Your task to perform on an android device: turn off location Image 0: 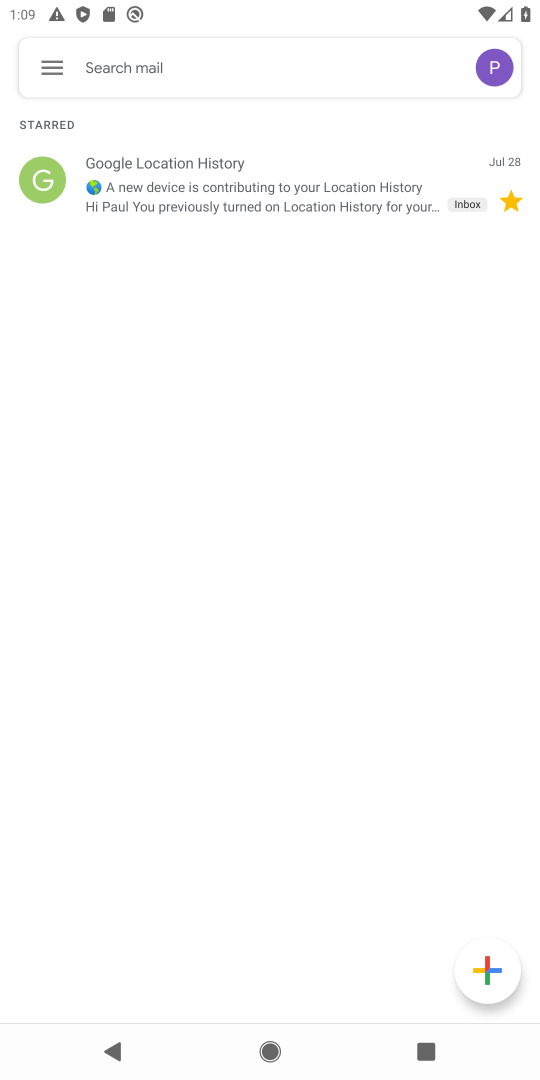
Step 0: press home button
Your task to perform on an android device: turn off location Image 1: 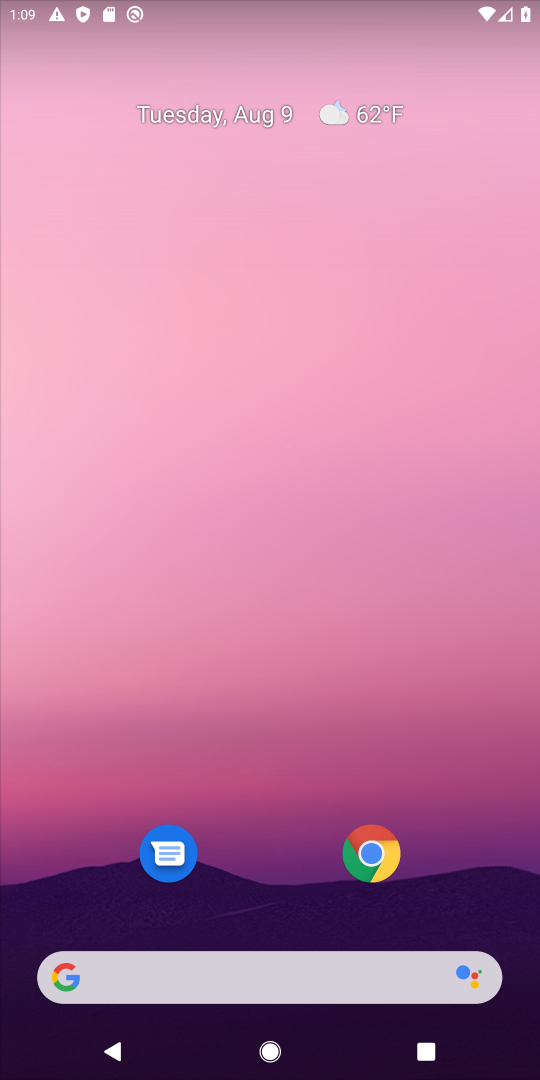
Step 1: drag from (261, 636) to (277, 191)
Your task to perform on an android device: turn off location Image 2: 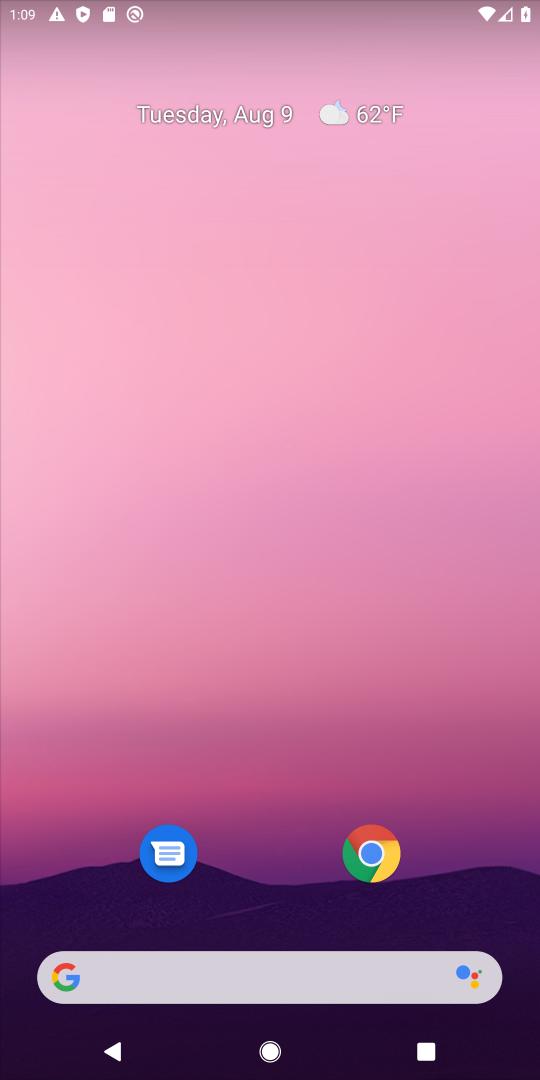
Step 2: drag from (296, 844) to (358, 0)
Your task to perform on an android device: turn off location Image 3: 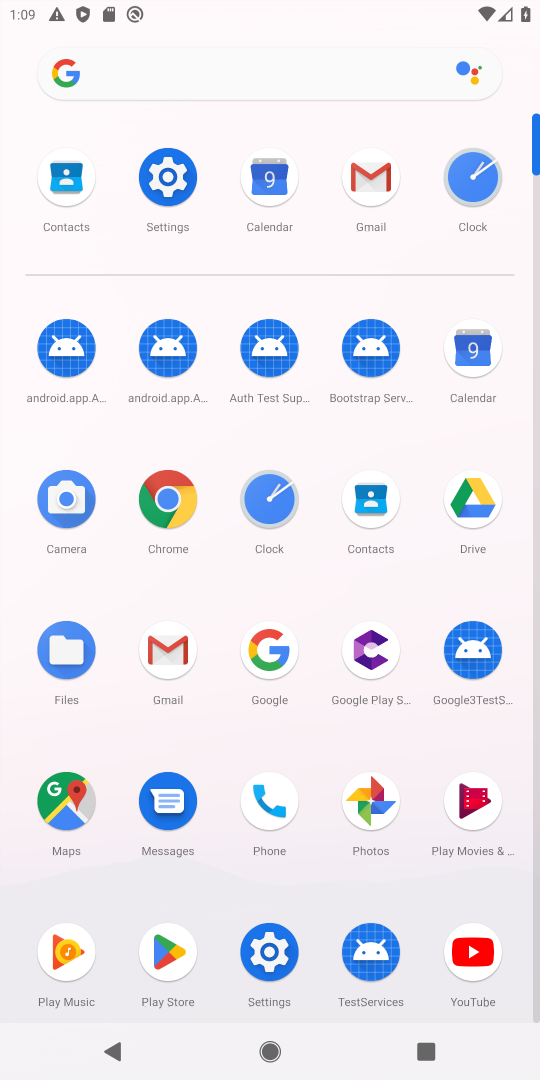
Step 3: click (148, 179)
Your task to perform on an android device: turn off location Image 4: 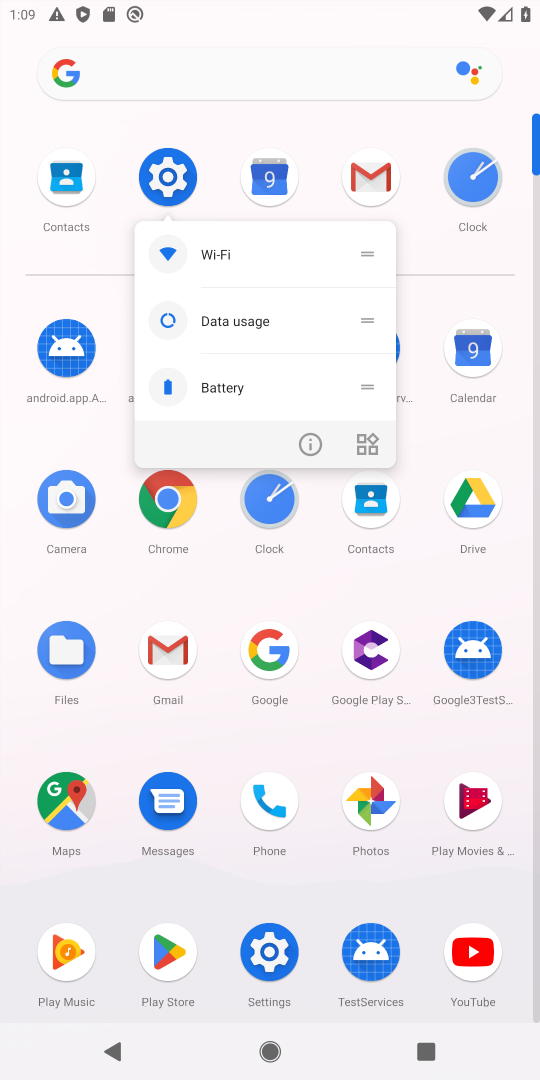
Step 4: click (180, 170)
Your task to perform on an android device: turn off location Image 5: 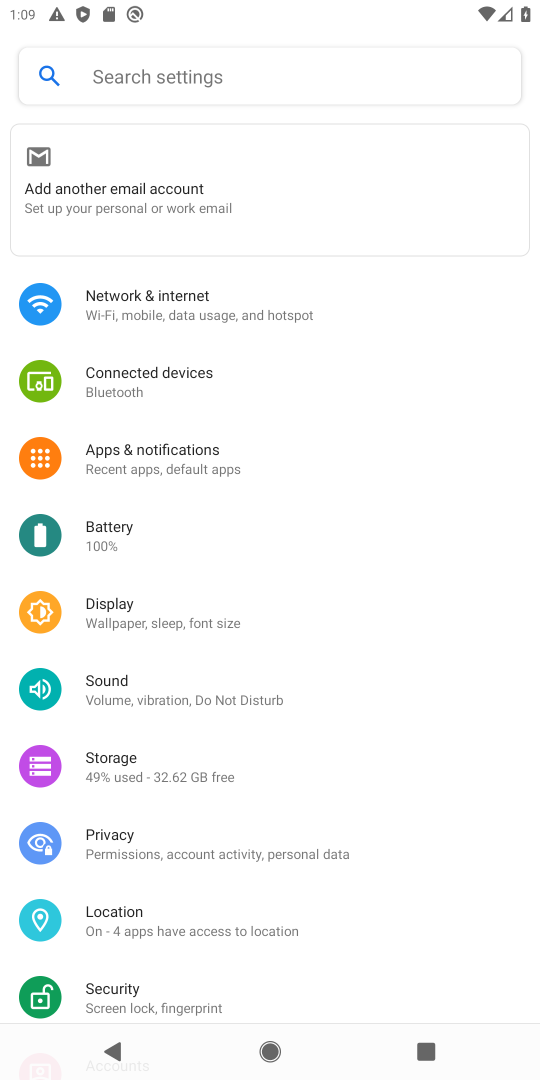
Step 5: click (164, 912)
Your task to perform on an android device: turn off location Image 6: 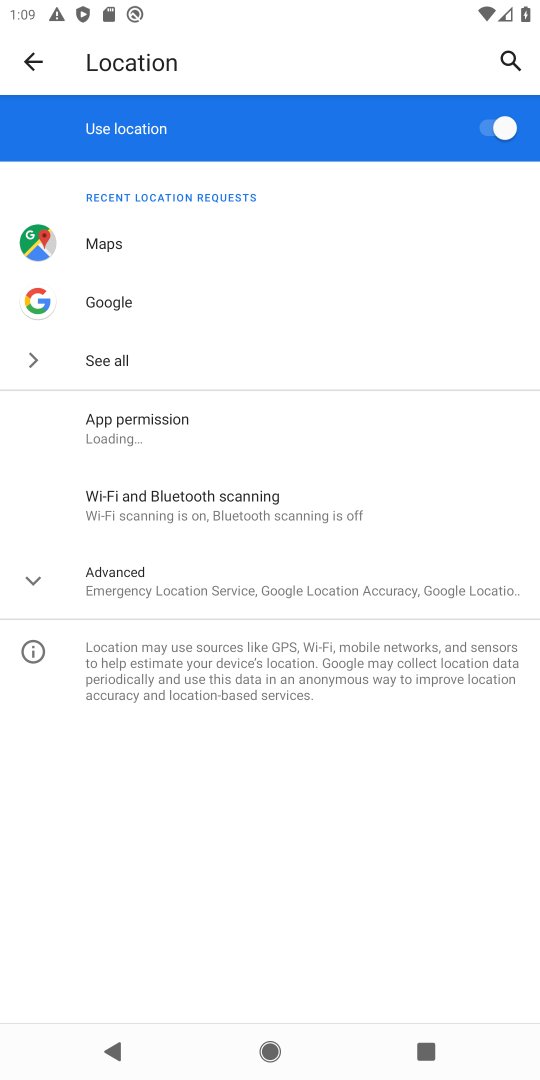
Step 6: click (496, 126)
Your task to perform on an android device: turn off location Image 7: 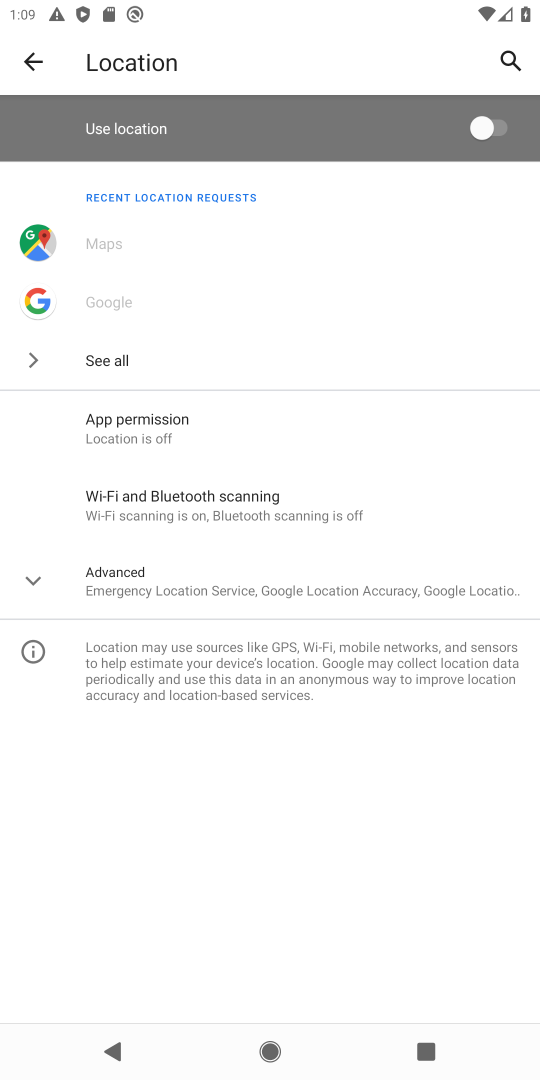
Step 7: task complete